Your task to perform on an android device: Show me productivity apps on the Play Store Image 0: 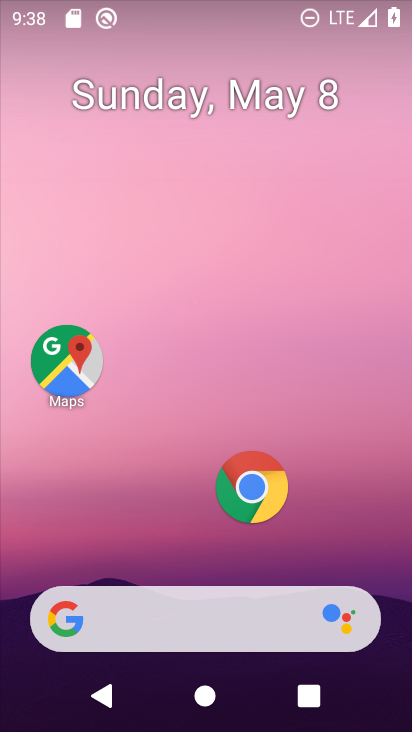
Step 0: drag from (153, 505) to (177, 36)
Your task to perform on an android device: Show me productivity apps on the Play Store Image 1: 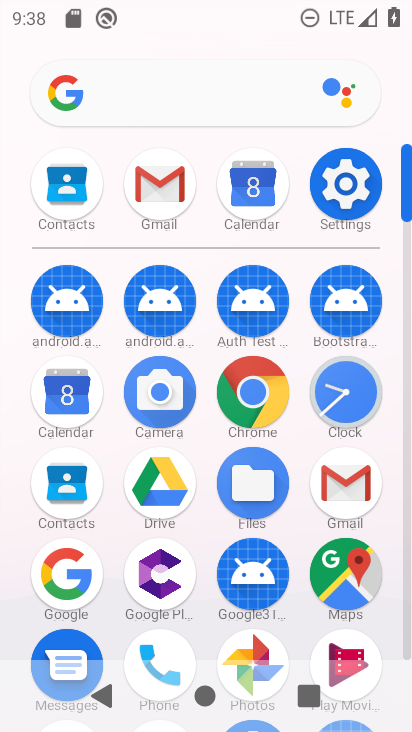
Step 1: drag from (234, 441) to (234, 231)
Your task to perform on an android device: Show me productivity apps on the Play Store Image 2: 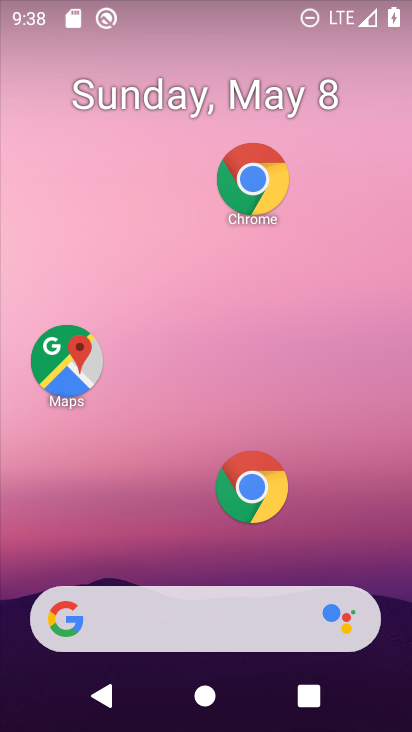
Step 2: drag from (212, 540) to (212, 51)
Your task to perform on an android device: Show me productivity apps on the Play Store Image 3: 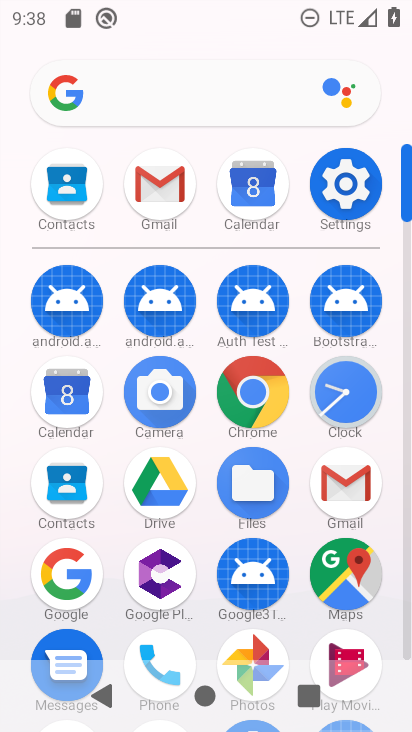
Step 3: drag from (204, 615) to (201, 218)
Your task to perform on an android device: Show me productivity apps on the Play Store Image 4: 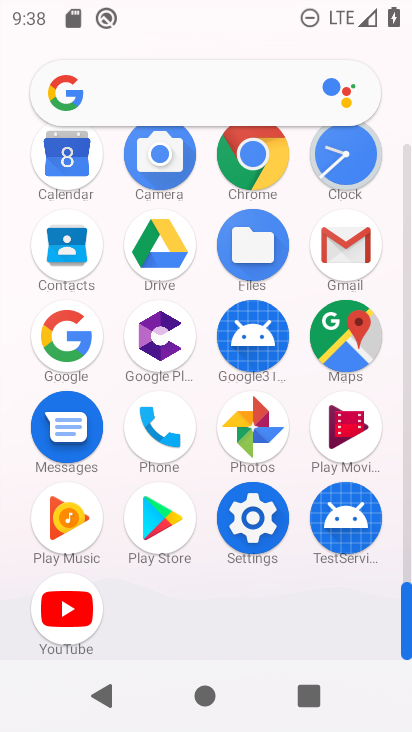
Step 4: click (171, 505)
Your task to perform on an android device: Show me productivity apps on the Play Store Image 5: 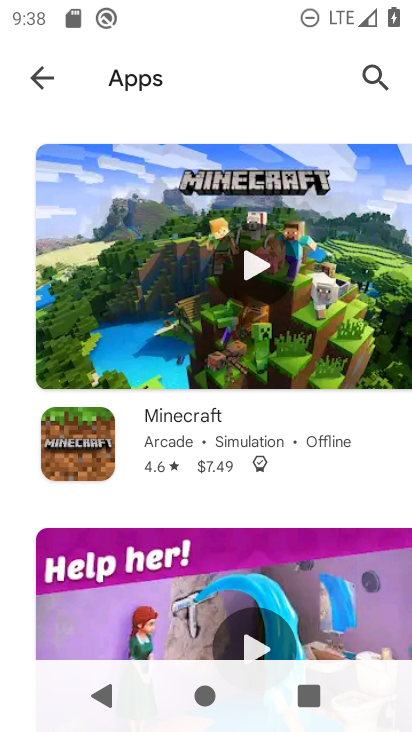
Step 5: click (41, 71)
Your task to perform on an android device: Show me productivity apps on the Play Store Image 6: 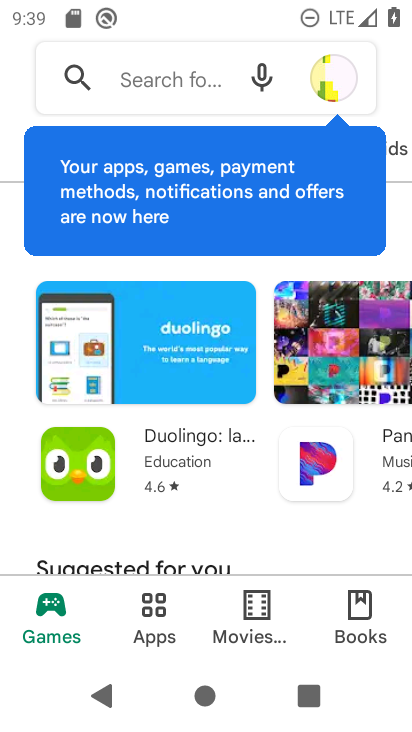
Step 6: click (154, 609)
Your task to perform on an android device: Show me productivity apps on the Play Store Image 7: 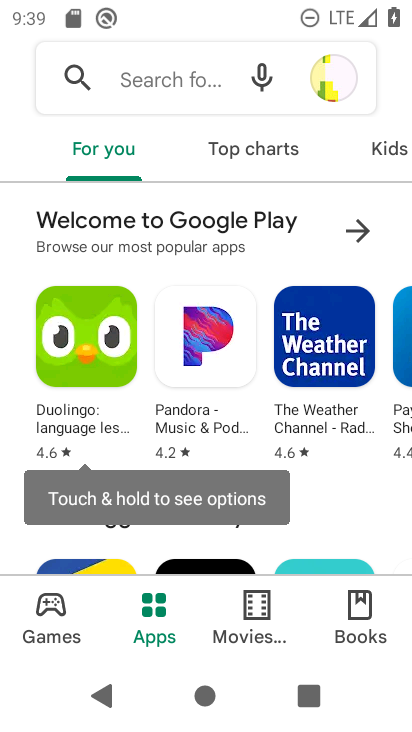
Step 7: drag from (355, 146) to (58, 181)
Your task to perform on an android device: Show me productivity apps on the Play Store Image 8: 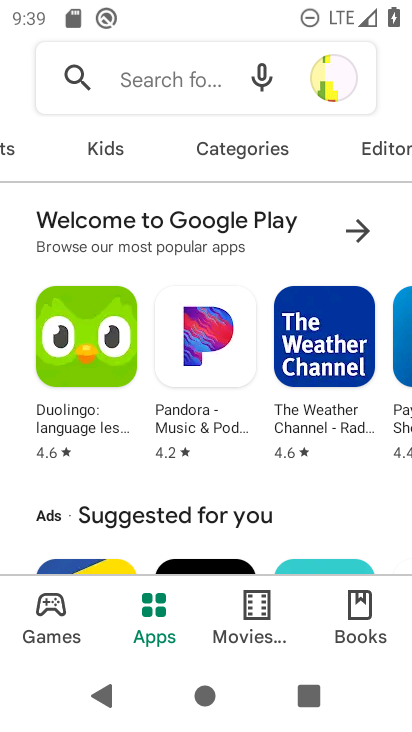
Step 8: click (226, 145)
Your task to perform on an android device: Show me productivity apps on the Play Store Image 9: 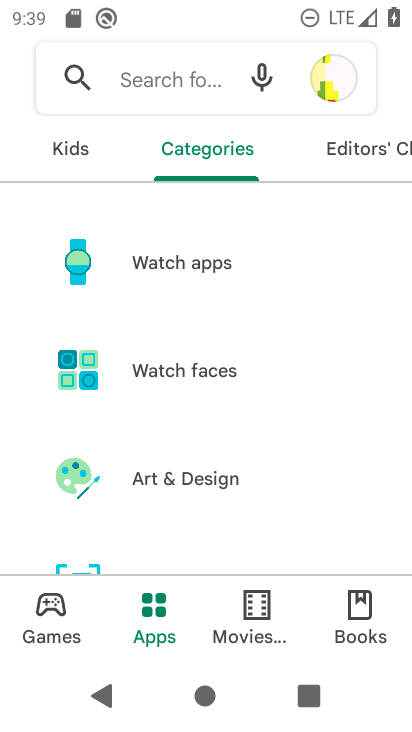
Step 9: drag from (223, 530) to (239, 13)
Your task to perform on an android device: Show me productivity apps on the Play Store Image 10: 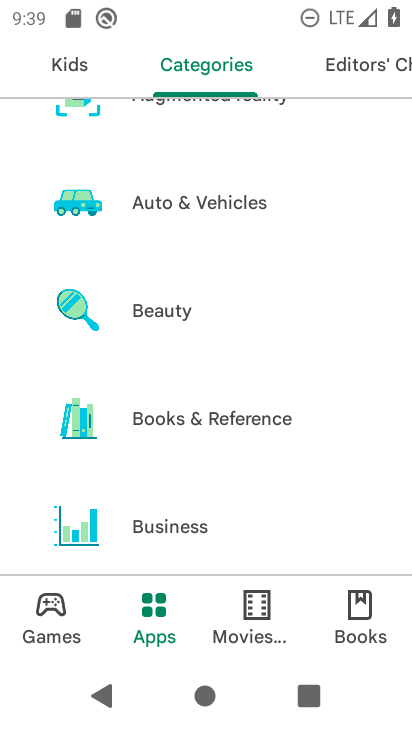
Step 10: drag from (265, 557) to (283, 3)
Your task to perform on an android device: Show me productivity apps on the Play Store Image 11: 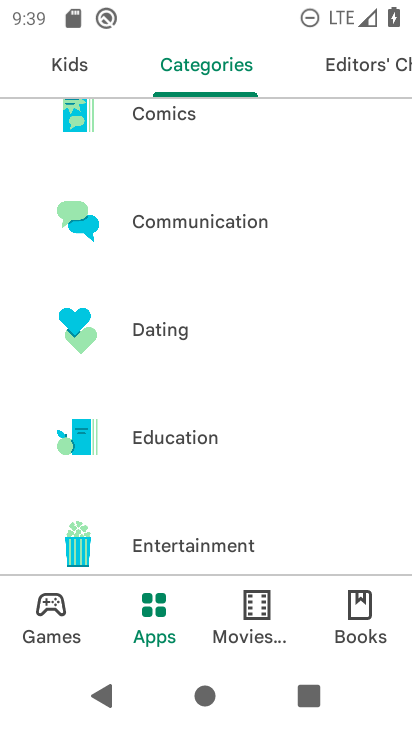
Step 11: drag from (272, 542) to (304, 84)
Your task to perform on an android device: Show me productivity apps on the Play Store Image 12: 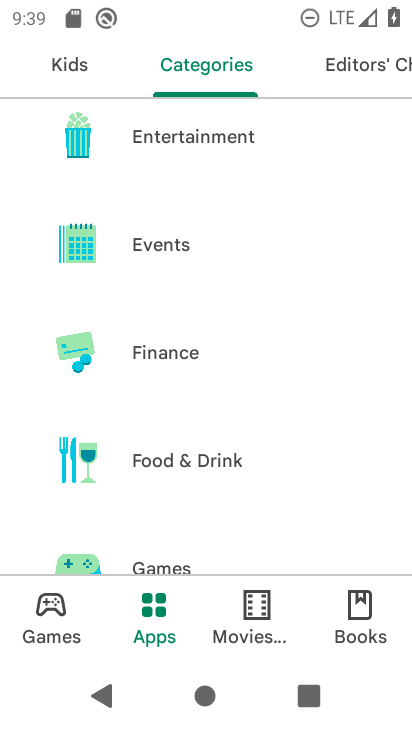
Step 12: drag from (294, 537) to (280, 119)
Your task to perform on an android device: Show me productivity apps on the Play Store Image 13: 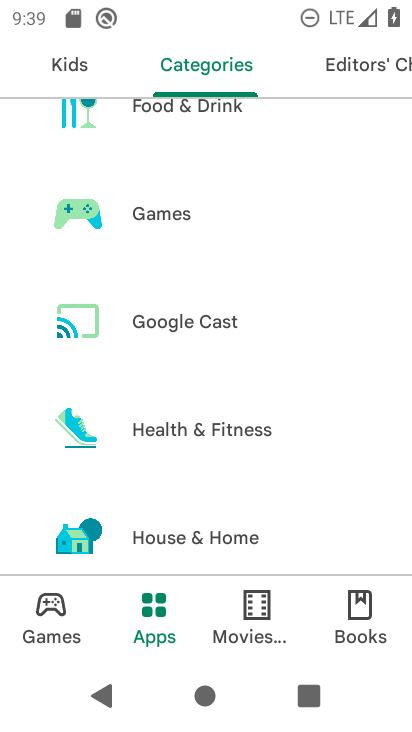
Step 13: drag from (236, 493) to (221, 204)
Your task to perform on an android device: Show me productivity apps on the Play Store Image 14: 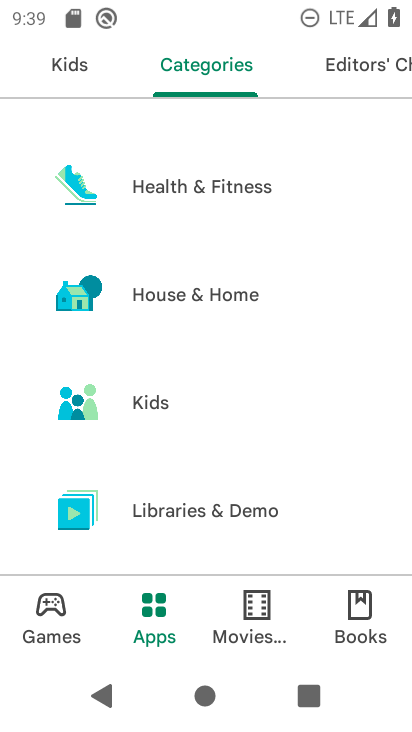
Step 14: drag from (316, 485) to (311, 195)
Your task to perform on an android device: Show me productivity apps on the Play Store Image 15: 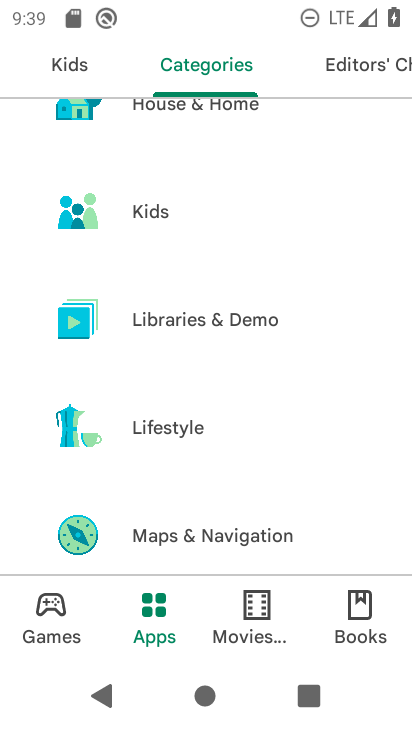
Step 15: drag from (213, 514) to (214, 115)
Your task to perform on an android device: Show me productivity apps on the Play Store Image 16: 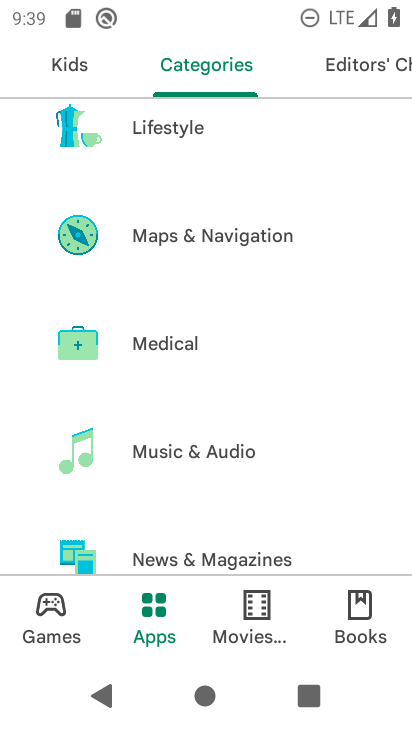
Step 16: drag from (199, 484) to (265, 98)
Your task to perform on an android device: Show me productivity apps on the Play Store Image 17: 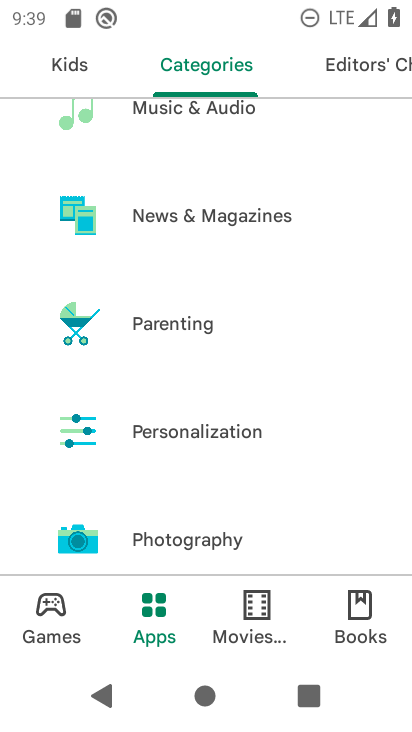
Step 17: drag from (208, 484) to (229, 164)
Your task to perform on an android device: Show me productivity apps on the Play Store Image 18: 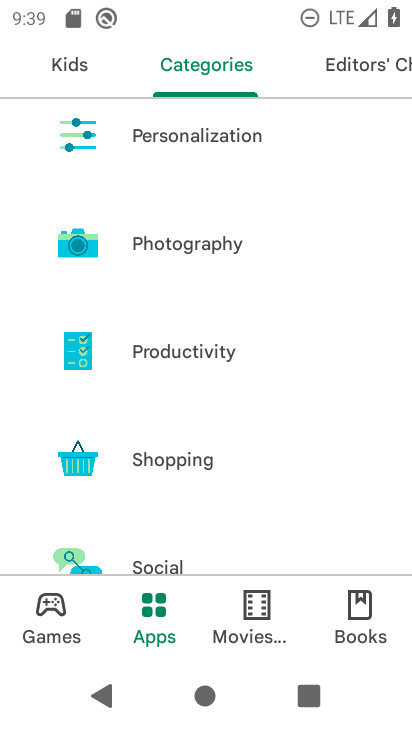
Step 18: click (195, 352)
Your task to perform on an android device: Show me productivity apps on the Play Store Image 19: 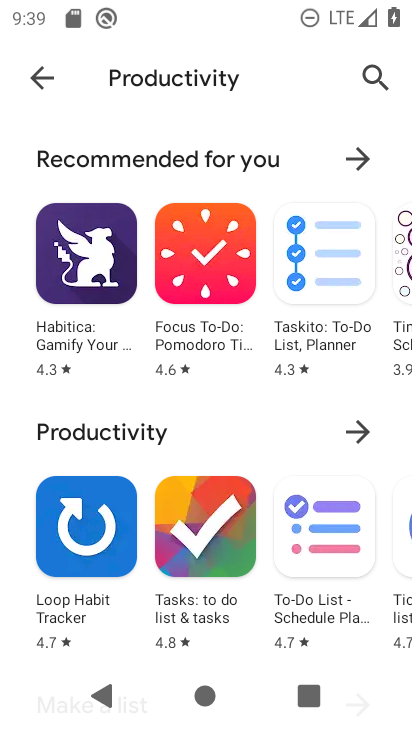
Step 19: click (358, 421)
Your task to perform on an android device: Show me productivity apps on the Play Store Image 20: 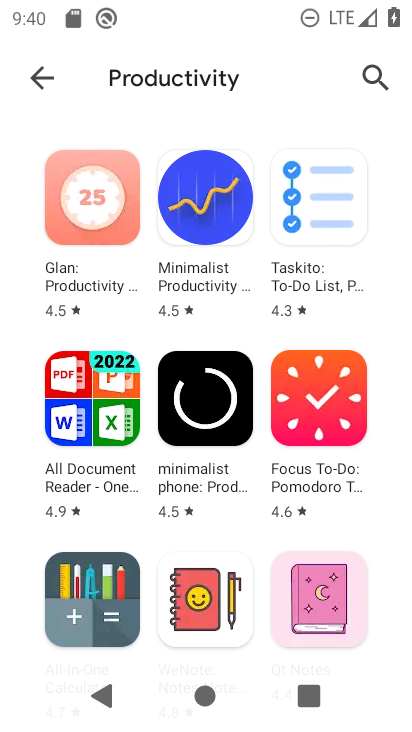
Step 20: task complete